Your task to perform on an android device: empty trash in the gmail app Image 0: 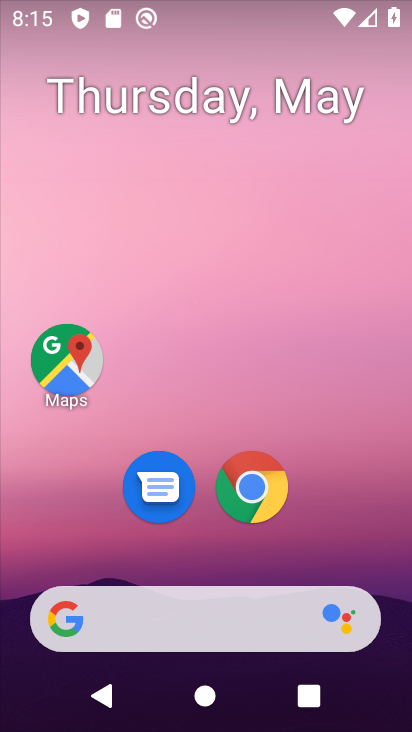
Step 0: drag from (384, 564) to (333, 85)
Your task to perform on an android device: empty trash in the gmail app Image 1: 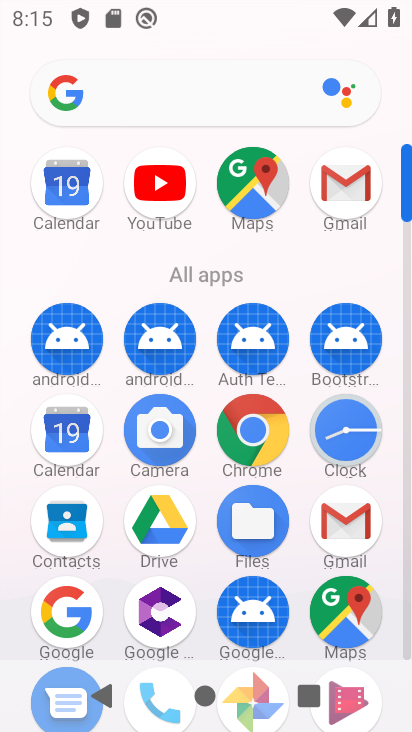
Step 1: click (347, 542)
Your task to perform on an android device: empty trash in the gmail app Image 2: 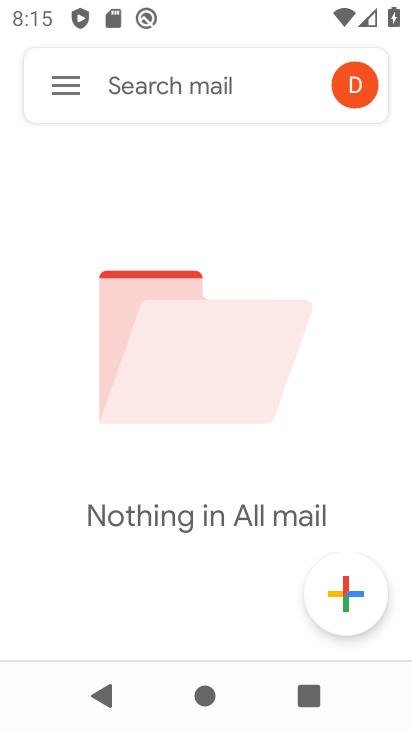
Step 2: click (75, 100)
Your task to perform on an android device: empty trash in the gmail app Image 3: 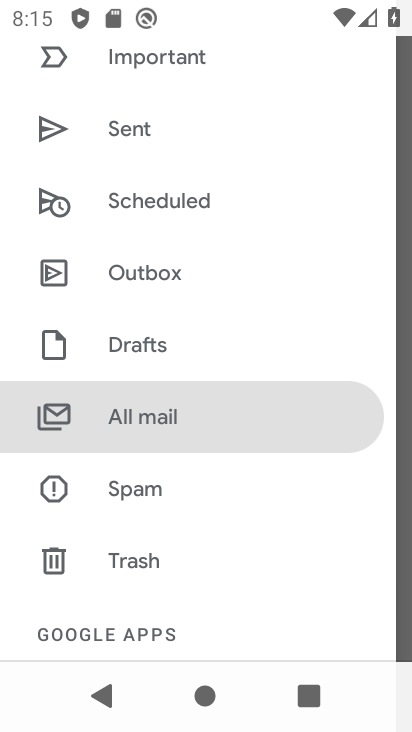
Step 3: click (154, 551)
Your task to perform on an android device: empty trash in the gmail app Image 4: 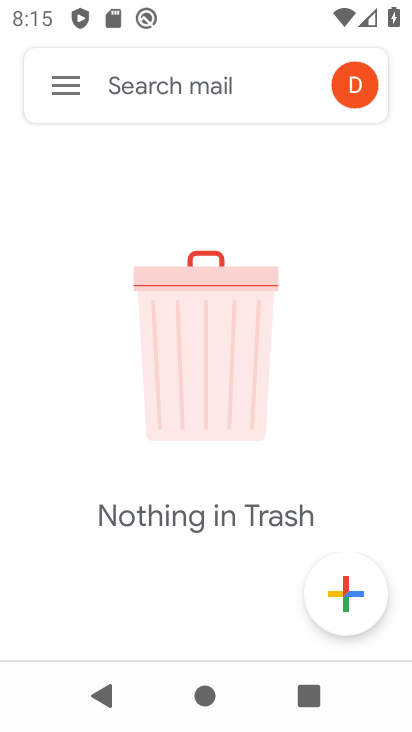
Step 4: task complete